Your task to perform on an android device: set default search engine in the chrome app Image 0: 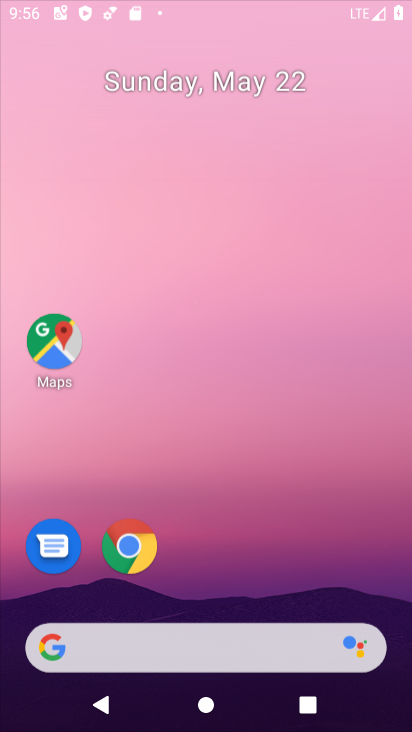
Step 0: click (297, 127)
Your task to perform on an android device: set default search engine in the chrome app Image 1: 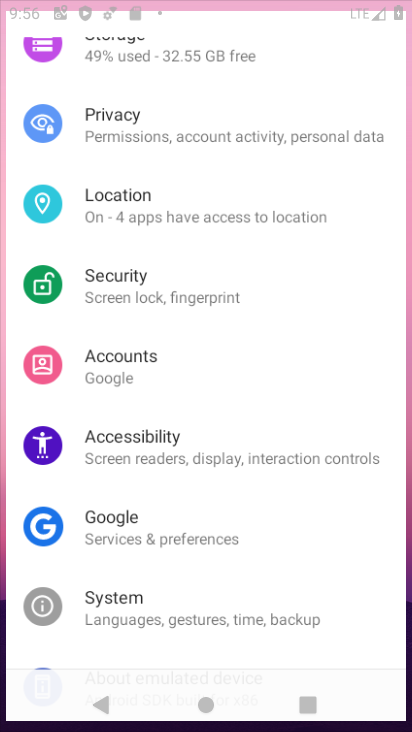
Step 1: drag from (200, 552) to (275, 5)
Your task to perform on an android device: set default search engine in the chrome app Image 2: 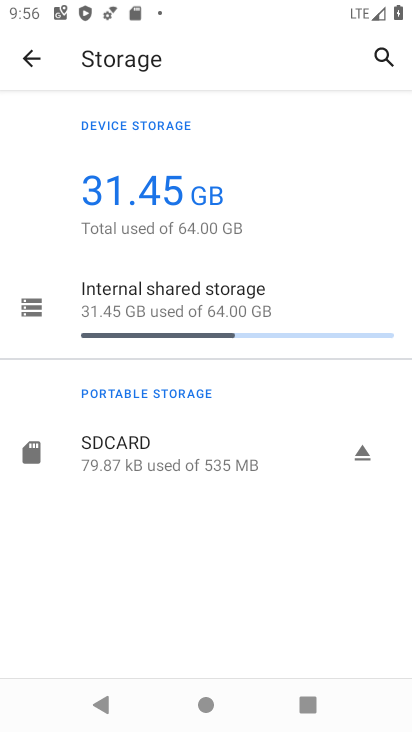
Step 2: press home button
Your task to perform on an android device: set default search engine in the chrome app Image 3: 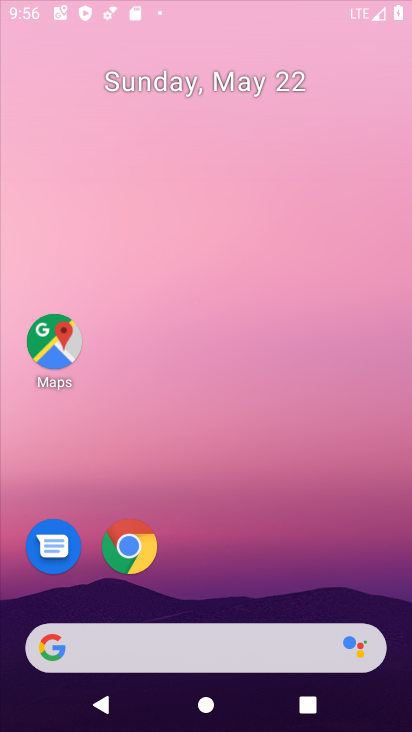
Step 3: drag from (227, 539) to (306, 42)
Your task to perform on an android device: set default search engine in the chrome app Image 4: 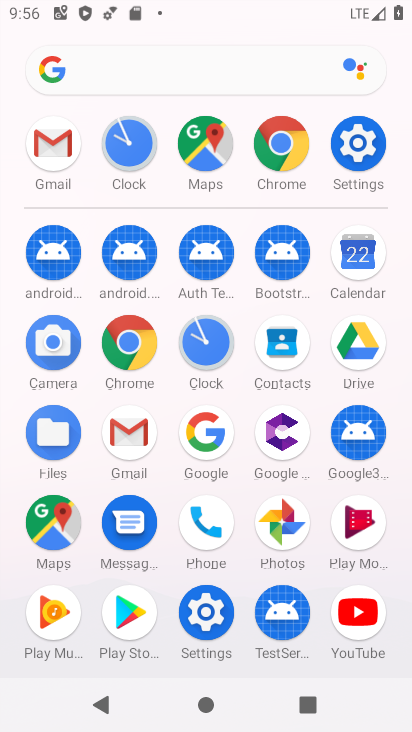
Step 4: click (125, 338)
Your task to perform on an android device: set default search engine in the chrome app Image 5: 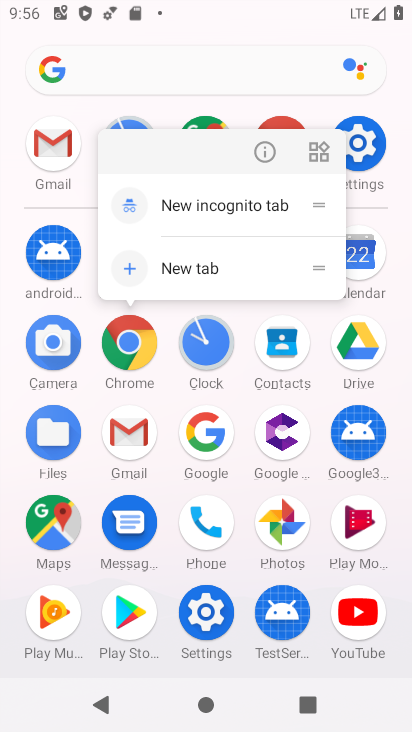
Step 5: click (268, 153)
Your task to perform on an android device: set default search engine in the chrome app Image 6: 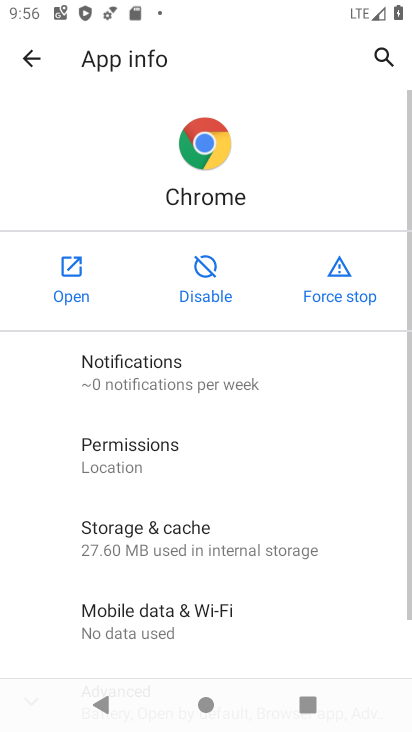
Step 6: click (73, 274)
Your task to perform on an android device: set default search engine in the chrome app Image 7: 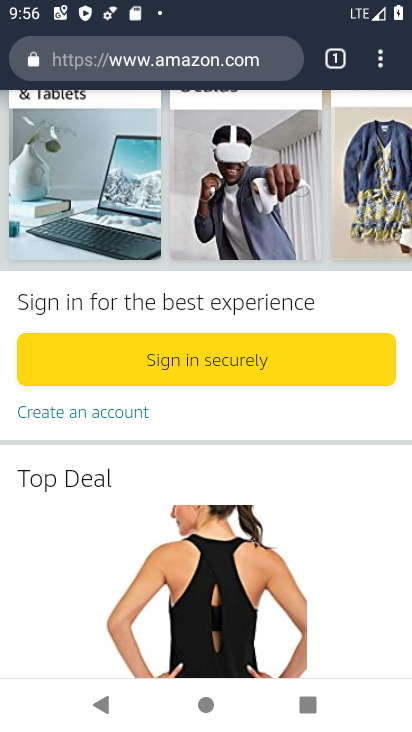
Step 7: drag from (139, 423) to (230, 141)
Your task to perform on an android device: set default search engine in the chrome app Image 8: 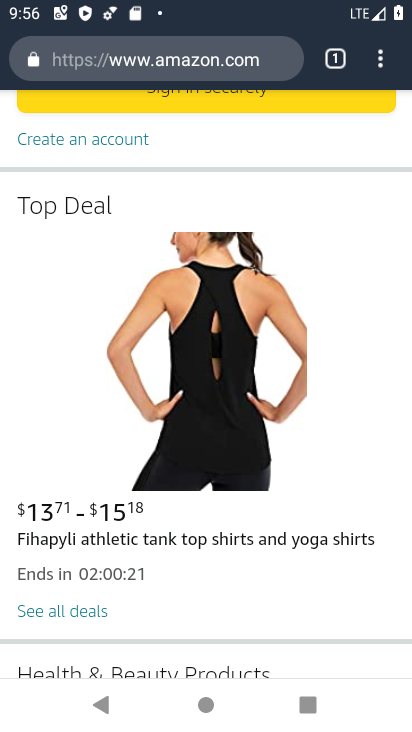
Step 8: drag from (228, 464) to (311, 159)
Your task to perform on an android device: set default search engine in the chrome app Image 9: 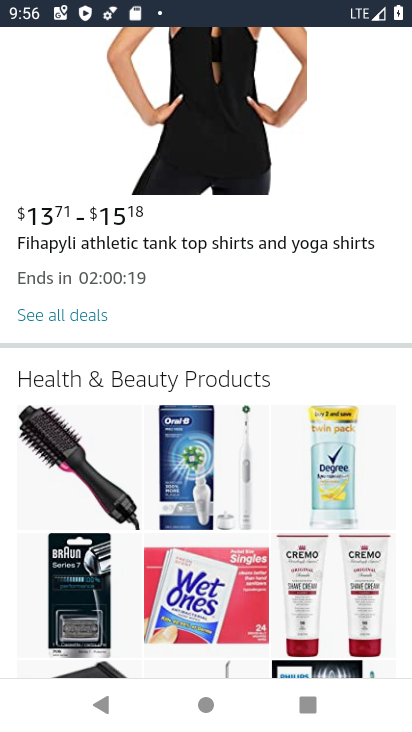
Step 9: drag from (237, 512) to (293, 160)
Your task to perform on an android device: set default search engine in the chrome app Image 10: 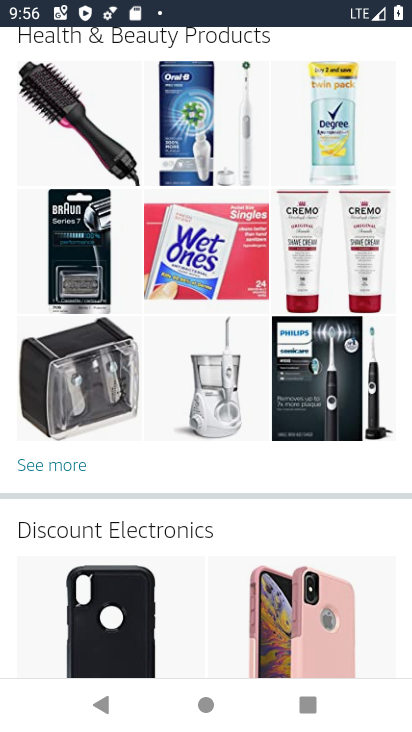
Step 10: drag from (200, 549) to (246, 218)
Your task to perform on an android device: set default search engine in the chrome app Image 11: 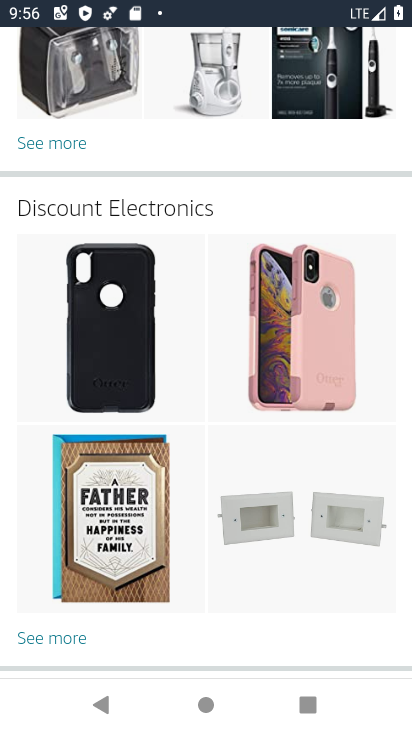
Step 11: drag from (249, 110) to (258, 717)
Your task to perform on an android device: set default search engine in the chrome app Image 12: 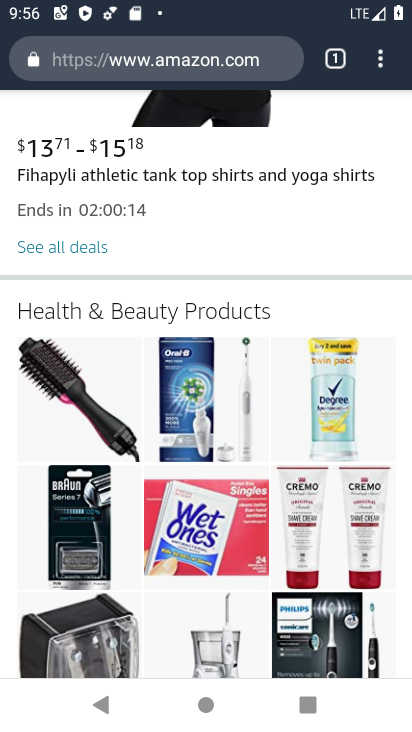
Step 12: drag from (239, 196) to (301, 725)
Your task to perform on an android device: set default search engine in the chrome app Image 13: 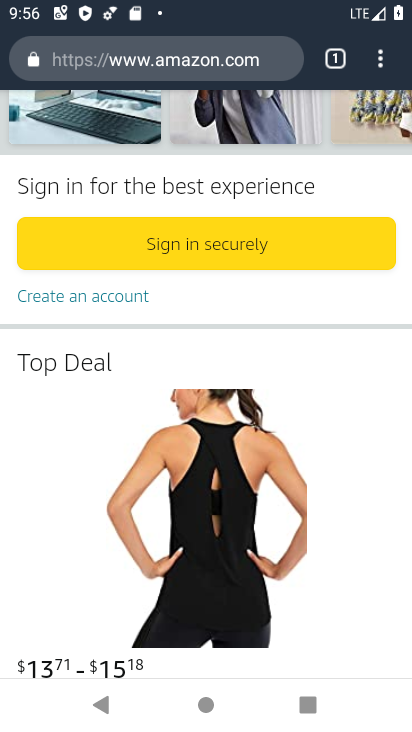
Step 13: click (381, 53)
Your task to perform on an android device: set default search engine in the chrome app Image 14: 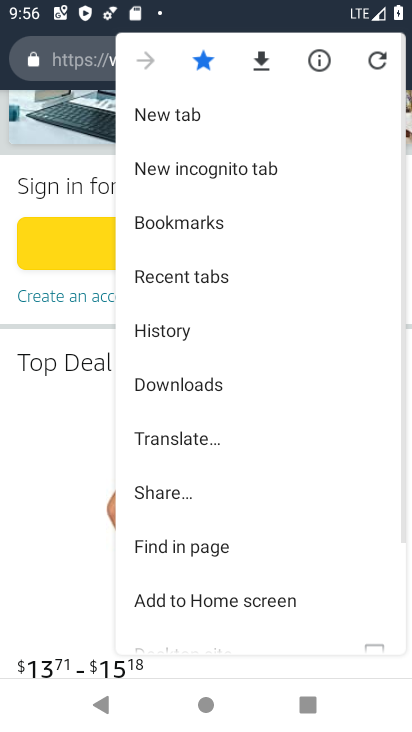
Step 14: drag from (277, 528) to (336, 66)
Your task to perform on an android device: set default search engine in the chrome app Image 15: 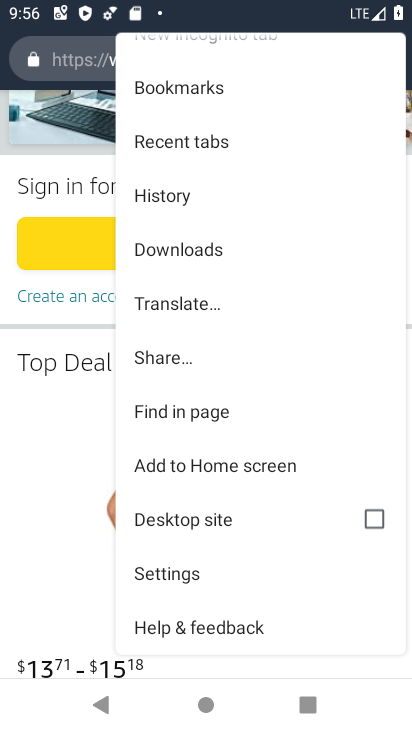
Step 15: click (198, 590)
Your task to perform on an android device: set default search engine in the chrome app Image 16: 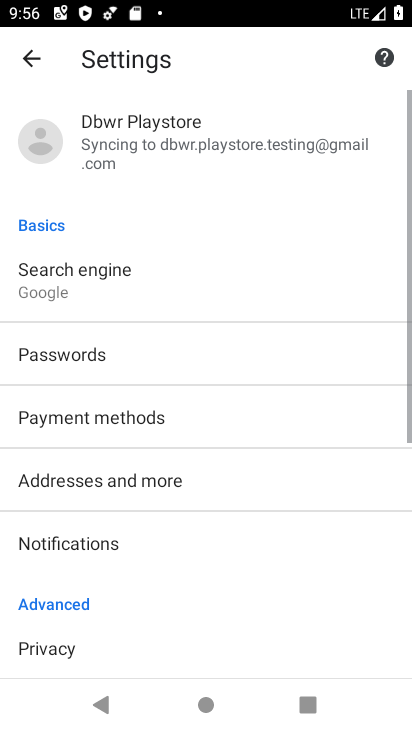
Step 16: click (110, 303)
Your task to perform on an android device: set default search engine in the chrome app Image 17: 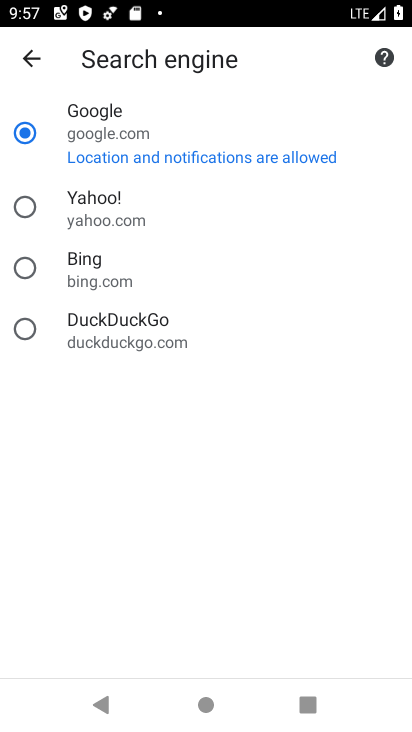
Step 17: task complete